Your task to perform on an android device: Open the phone app and click the voicemail tab. Image 0: 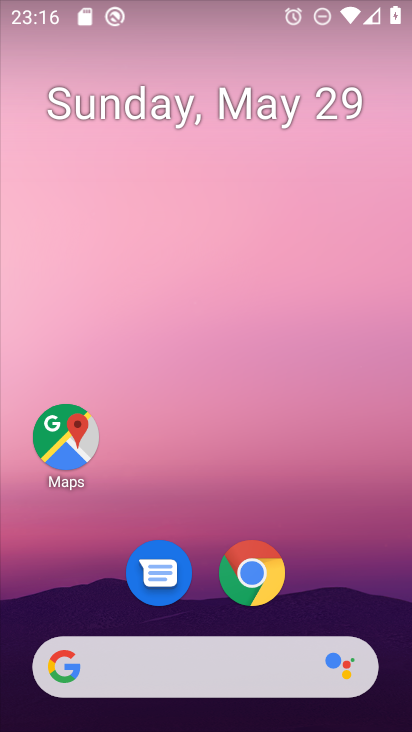
Step 0: drag from (300, 498) to (287, 18)
Your task to perform on an android device: Open the phone app and click the voicemail tab. Image 1: 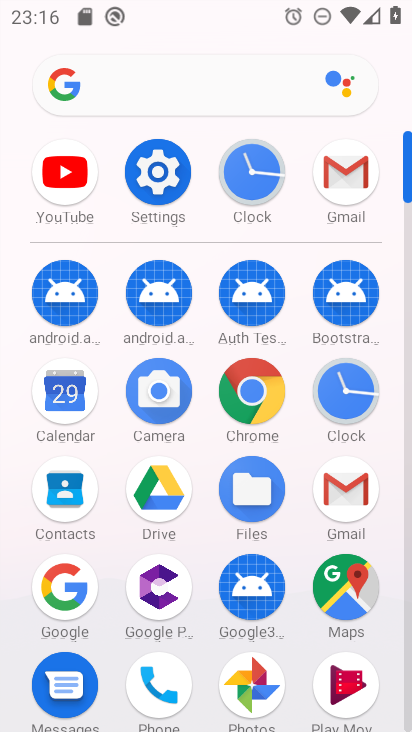
Step 1: click (171, 676)
Your task to perform on an android device: Open the phone app and click the voicemail tab. Image 2: 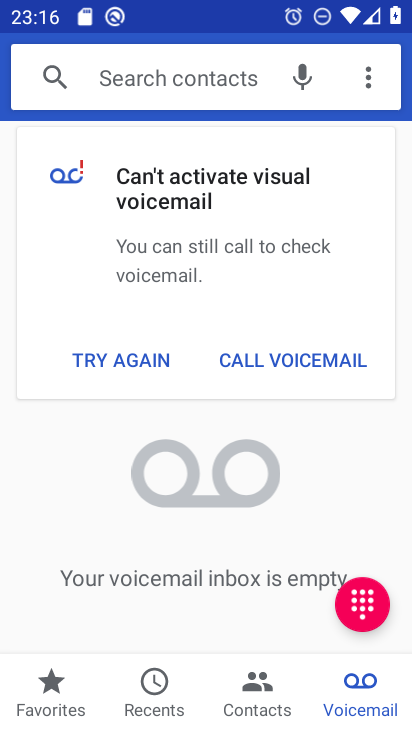
Step 2: click (362, 688)
Your task to perform on an android device: Open the phone app and click the voicemail tab. Image 3: 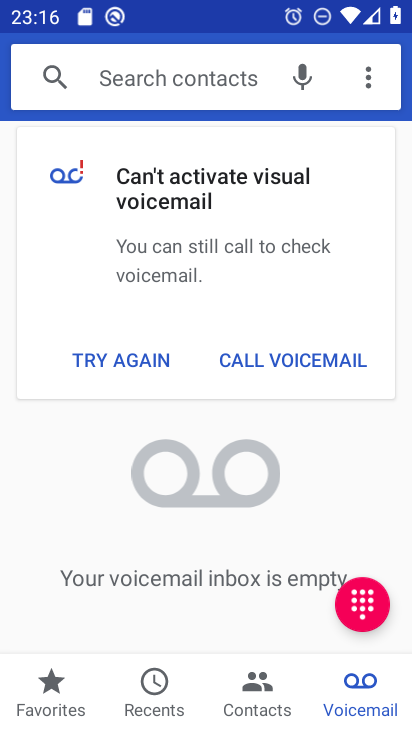
Step 3: task complete